Your task to perform on an android device: set the stopwatch Image 0: 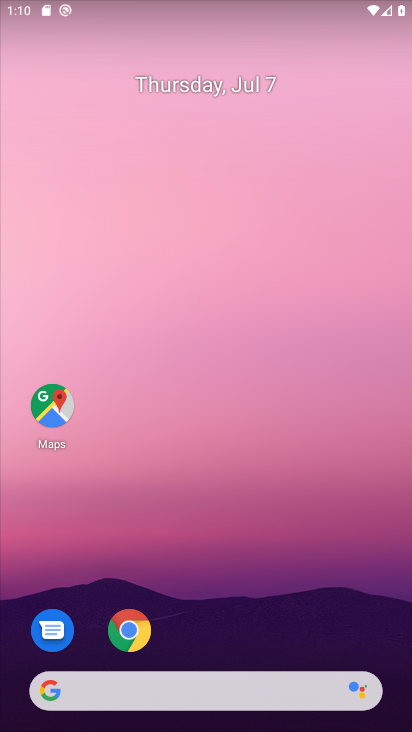
Step 0: drag from (239, 628) to (249, 82)
Your task to perform on an android device: set the stopwatch Image 1: 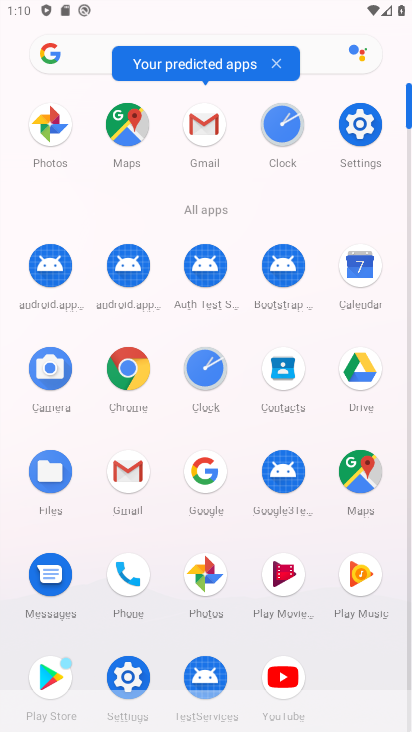
Step 1: click (280, 126)
Your task to perform on an android device: set the stopwatch Image 2: 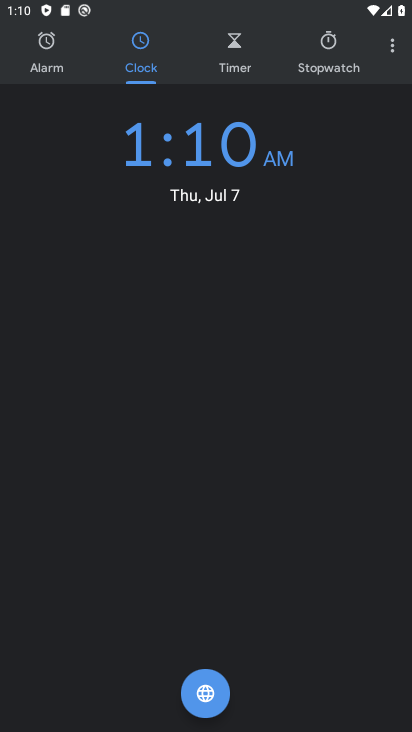
Step 2: click (323, 57)
Your task to perform on an android device: set the stopwatch Image 3: 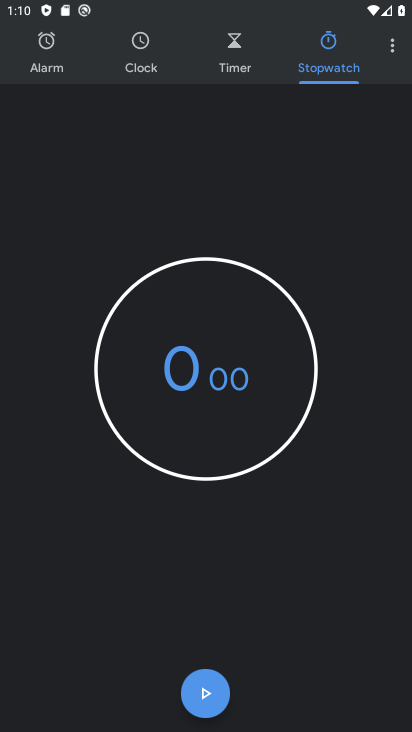
Step 3: click (206, 676)
Your task to perform on an android device: set the stopwatch Image 4: 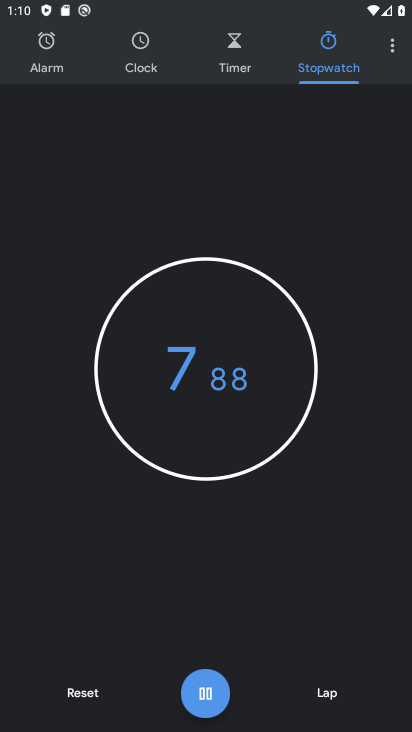
Step 4: task complete